Your task to perform on an android device: Go to internet settings Image 0: 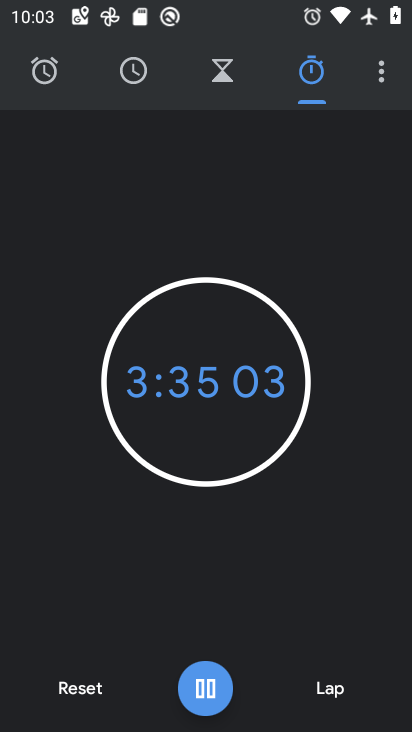
Step 0: press home button
Your task to perform on an android device: Go to internet settings Image 1: 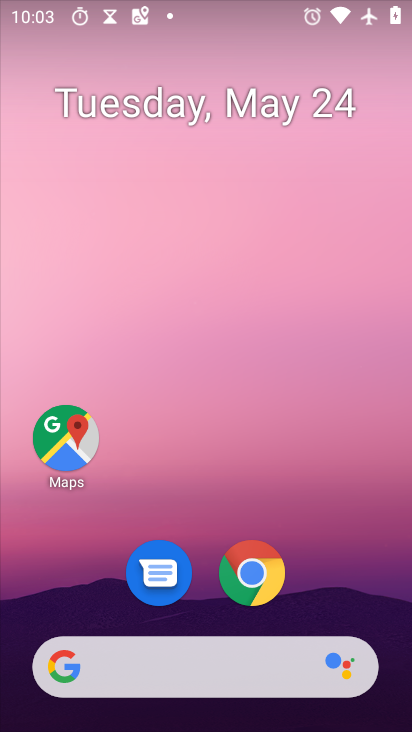
Step 1: drag from (337, 494) to (347, 41)
Your task to perform on an android device: Go to internet settings Image 2: 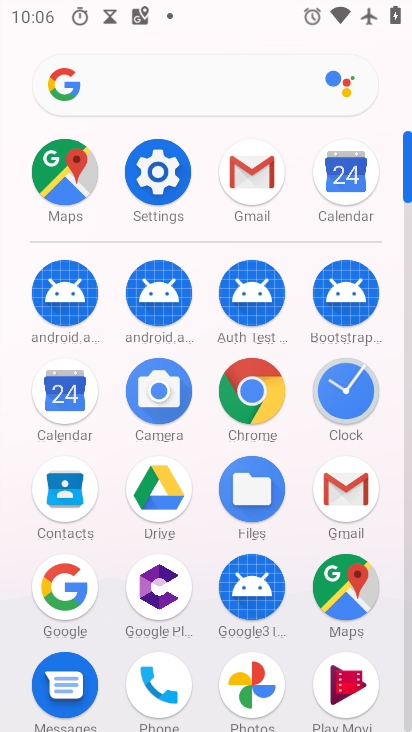
Step 2: click (163, 197)
Your task to perform on an android device: Go to internet settings Image 3: 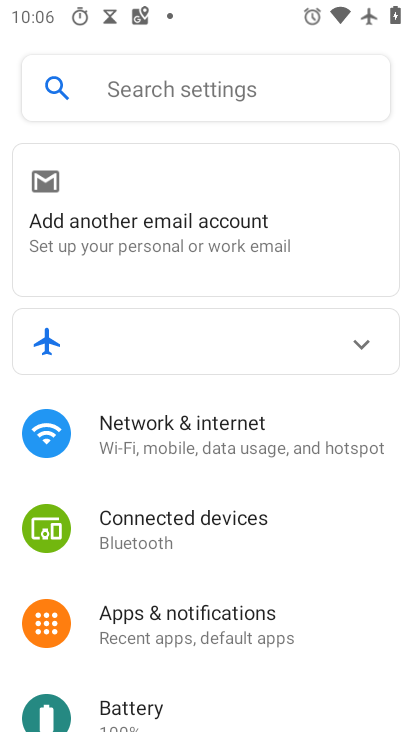
Step 3: click (155, 425)
Your task to perform on an android device: Go to internet settings Image 4: 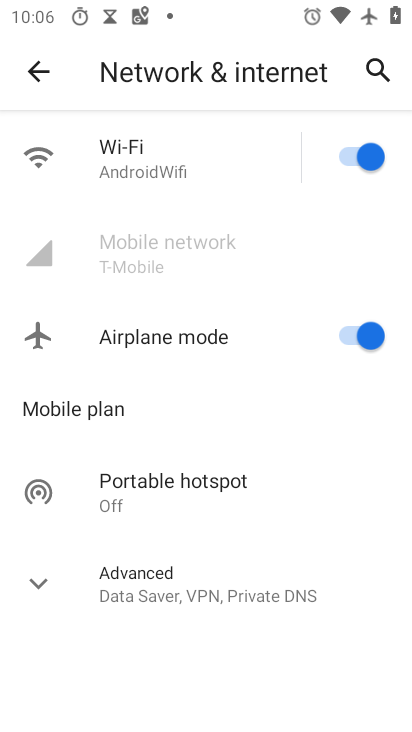
Step 4: task complete